Your task to perform on an android device: Go to notification settings Image 0: 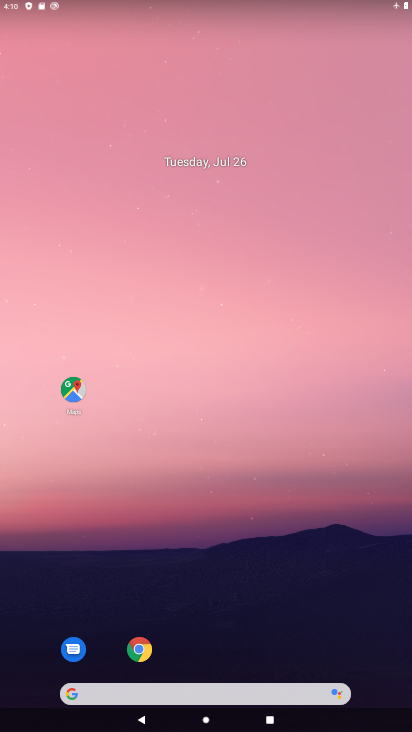
Step 0: drag from (207, 647) to (240, 164)
Your task to perform on an android device: Go to notification settings Image 1: 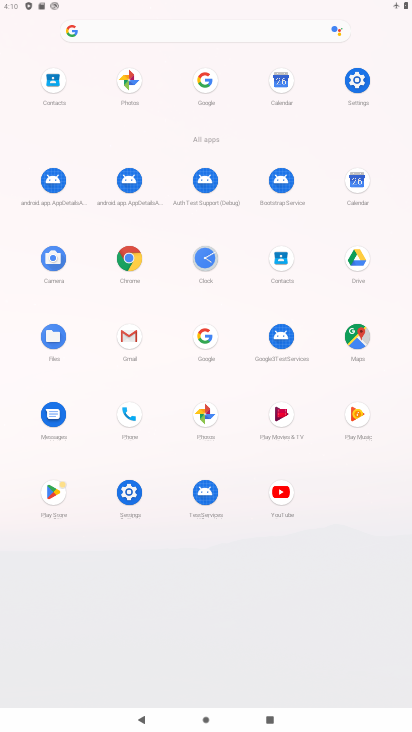
Step 1: click (361, 83)
Your task to perform on an android device: Go to notification settings Image 2: 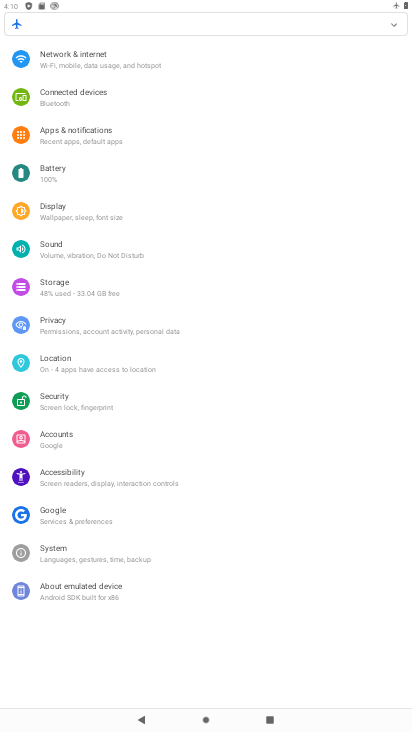
Step 2: click (98, 148)
Your task to perform on an android device: Go to notification settings Image 3: 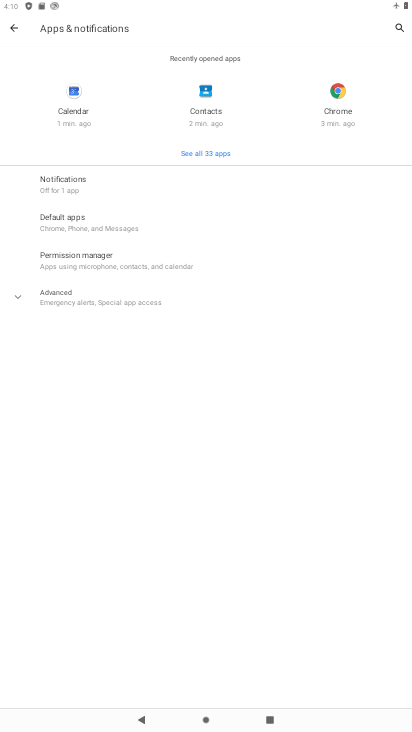
Step 3: click (137, 192)
Your task to perform on an android device: Go to notification settings Image 4: 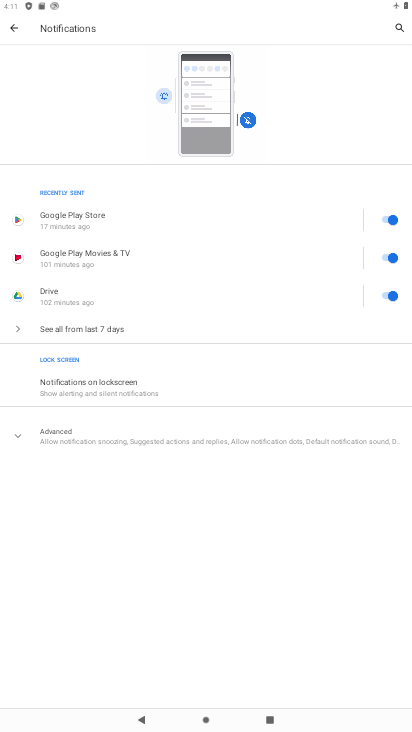
Step 4: task complete